Your task to perform on an android device: Check the news Image 0: 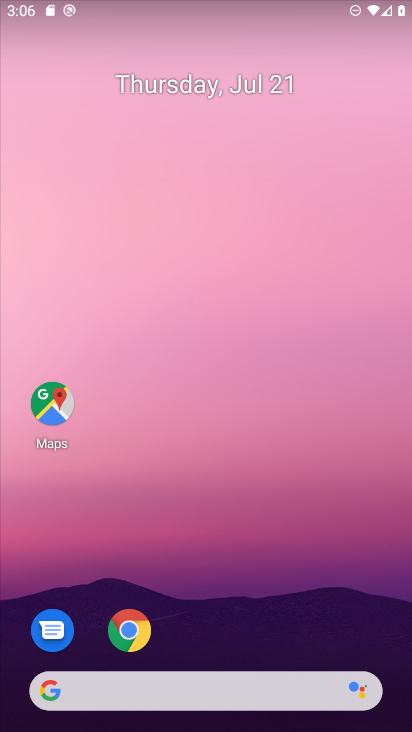
Step 0: click (163, 694)
Your task to perform on an android device: Check the news Image 1: 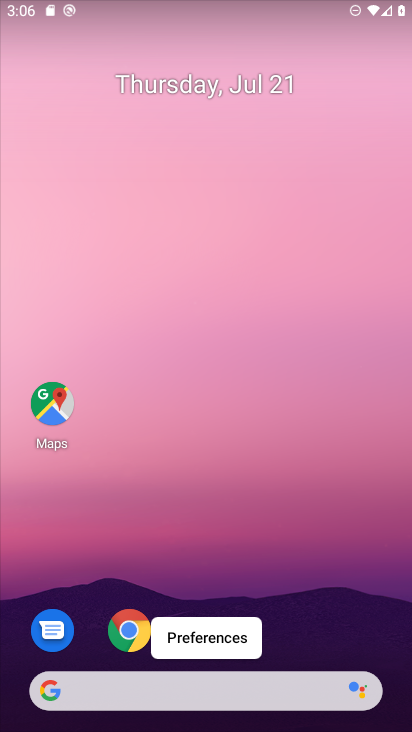
Step 1: click (163, 694)
Your task to perform on an android device: Check the news Image 2: 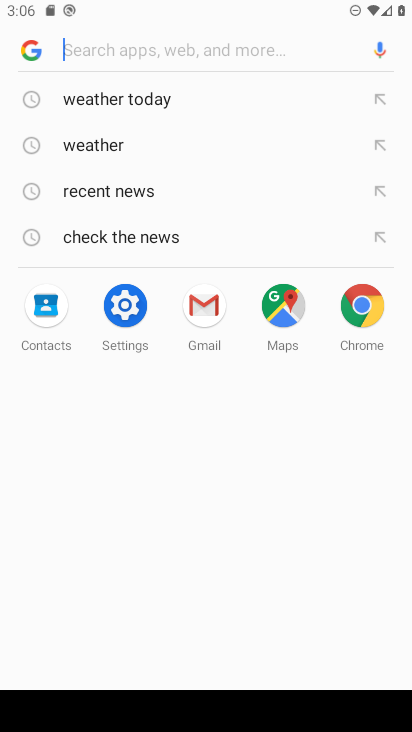
Step 2: click (120, 245)
Your task to perform on an android device: Check the news Image 3: 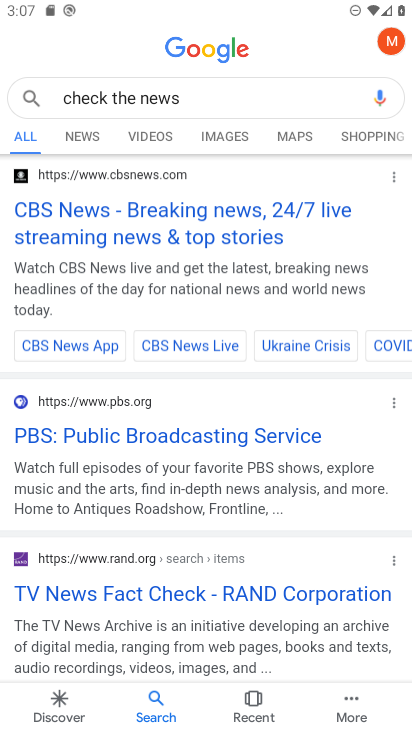
Step 3: click (117, 221)
Your task to perform on an android device: Check the news Image 4: 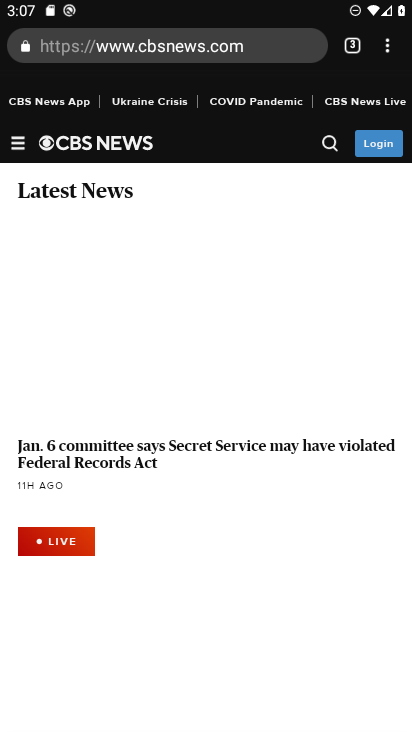
Step 4: task complete